Your task to perform on an android device: Show me popular games on the Play Store Image 0: 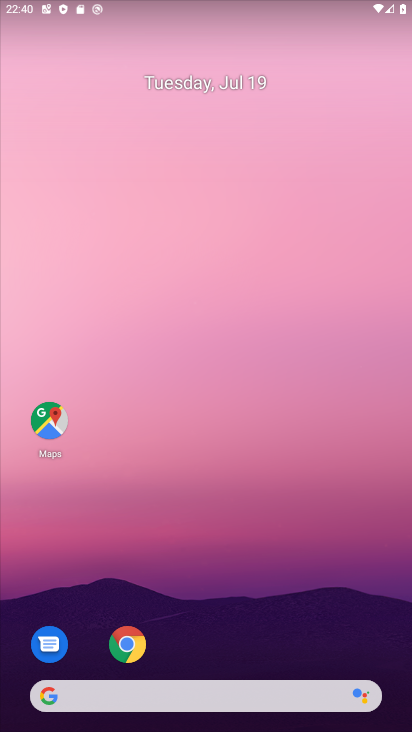
Step 0: drag from (239, 724) to (243, 402)
Your task to perform on an android device: Show me popular games on the Play Store Image 1: 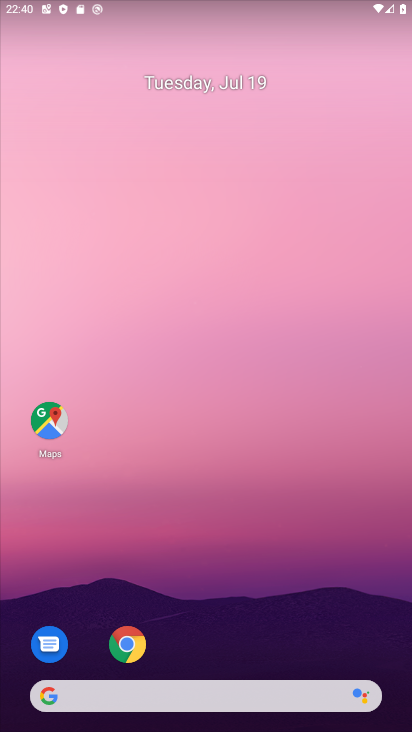
Step 1: drag from (246, 709) to (225, 278)
Your task to perform on an android device: Show me popular games on the Play Store Image 2: 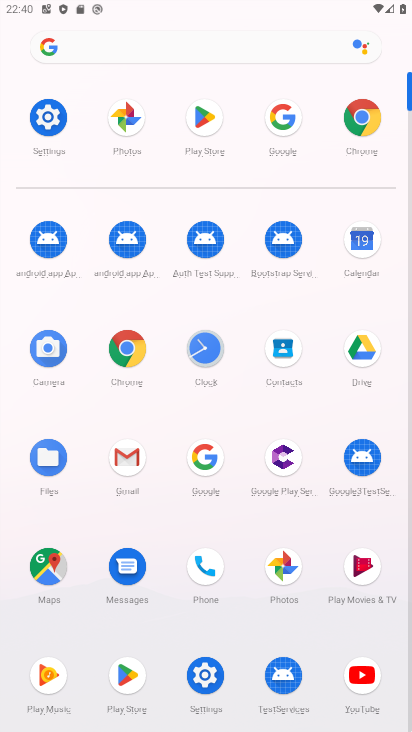
Step 2: click (130, 671)
Your task to perform on an android device: Show me popular games on the Play Store Image 3: 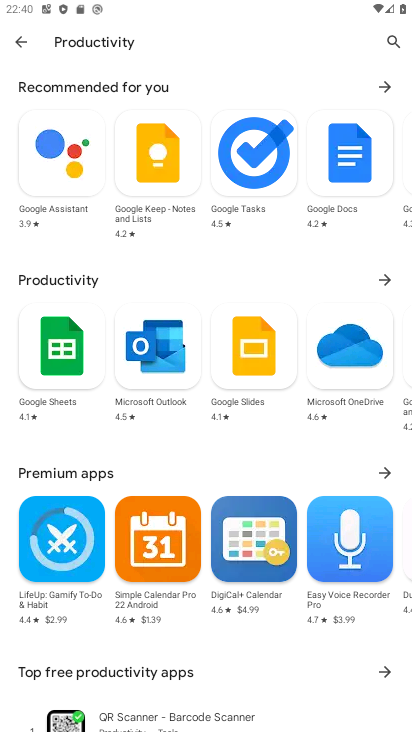
Step 3: click (19, 41)
Your task to perform on an android device: Show me popular games on the Play Store Image 4: 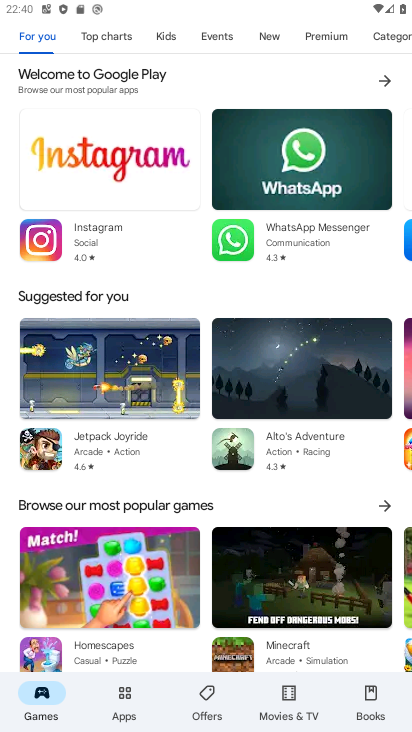
Step 4: click (193, 501)
Your task to perform on an android device: Show me popular games on the Play Store Image 5: 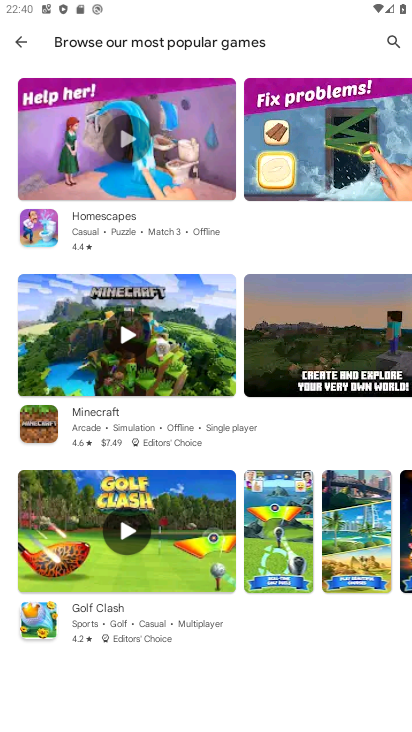
Step 5: task complete